Your task to perform on an android device: toggle notification dots Image 0: 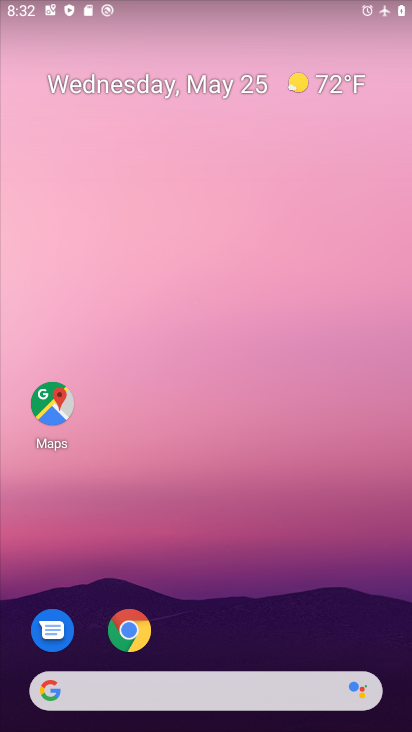
Step 0: drag from (251, 639) to (251, 218)
Your task to perform on an android device: toggle notification dots Image 1: 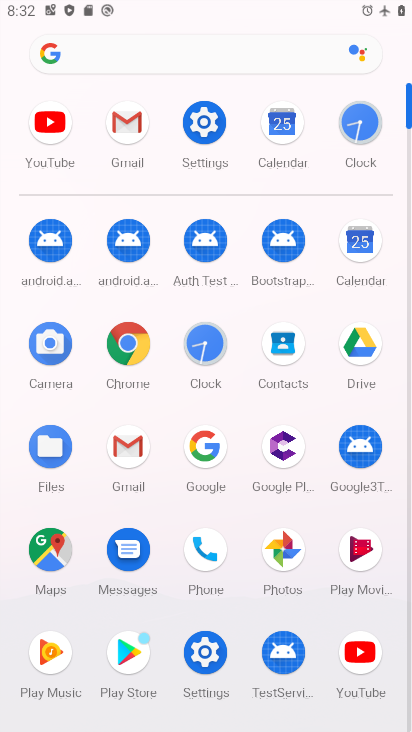
Step 1: click (201, 129)
Your task to perform on an android device: toggle notification dots Image 2: 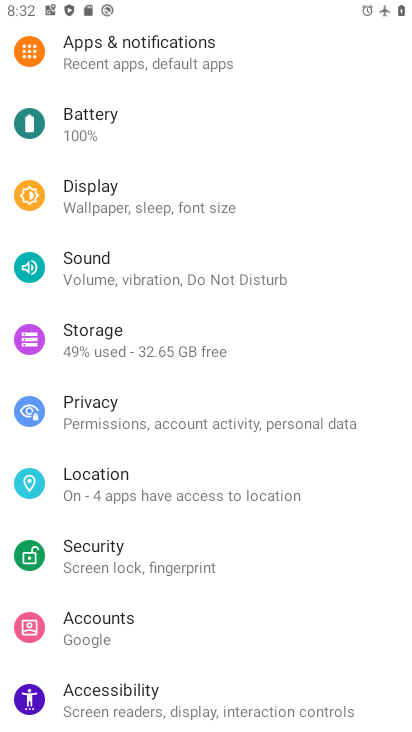
Step 2: click (216, 62)
Your task to perform on an android device: toggle notification dots Image 3: 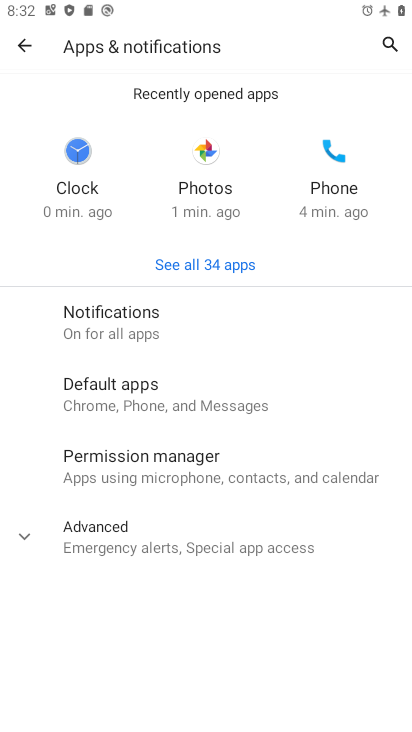
Step 3: click (154, 326)
Your task to perform on an android device: toggle notification dots Image 4: 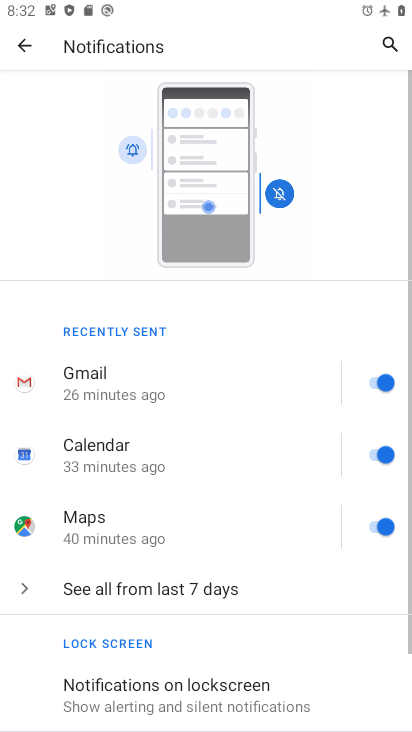
Step 4: drag from (230, 660) to (276, 363)
Your task to perform on an android device: toggle notification dots Image 5: 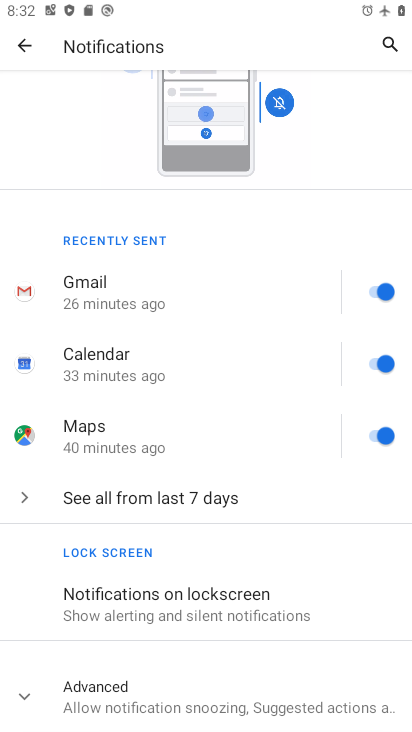
Step 5: click (231, 699)
Your task to perform on an android device: toggle notification dots Image 6: 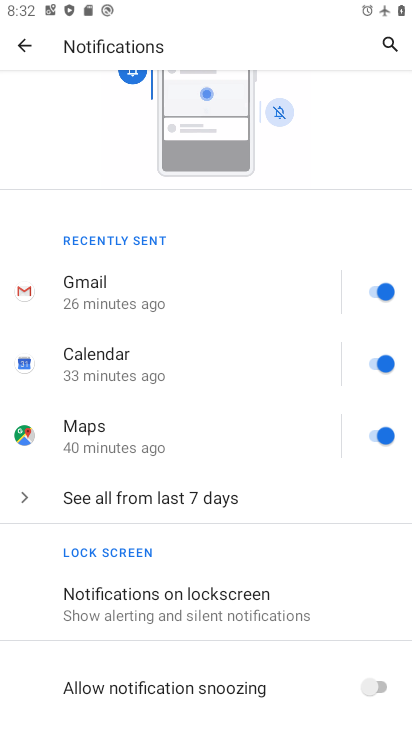
Step 6: drag from (232, 676) to (304, 455)
Your task to perform on an android device: toggle notification dots Image 7: 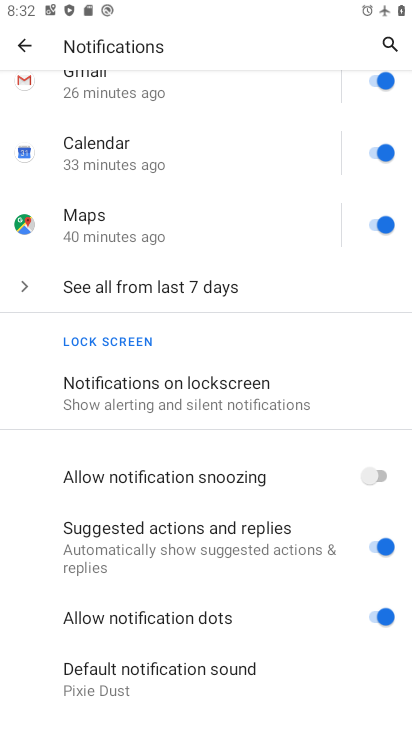
Step 7: click (371, 605)
Your task to perform on an android device: toggle notification dots Image 8: 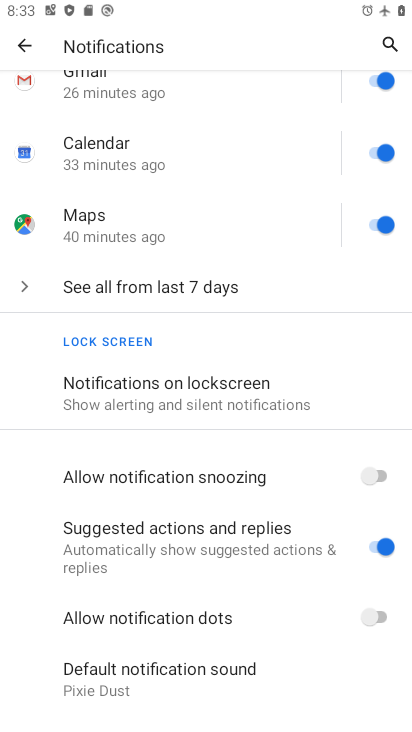
Step 8: task complete